Your task to perform on an android device: change the clock display to digital Image 0: 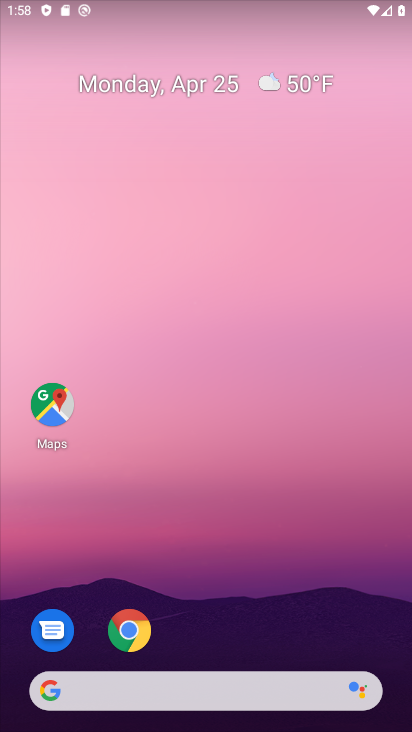
Step 0: drag from (232, 646) to (236, 161)
Your task to perform on an android device: change the clock display to digital Image 1: 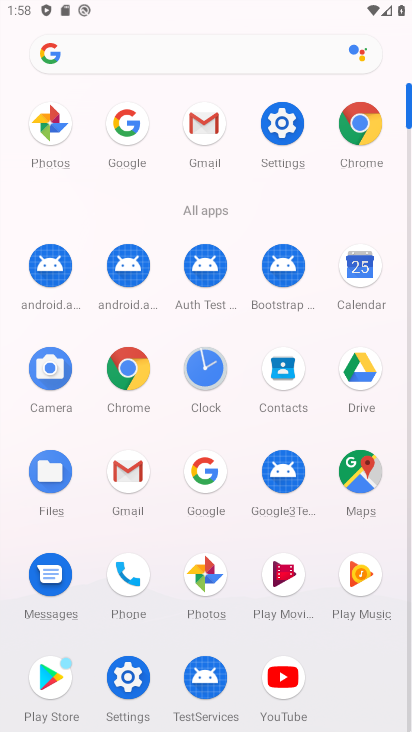
Step 1: click (222, 375)
Your task to perform on an android device: change the clock display to digital Image 2: 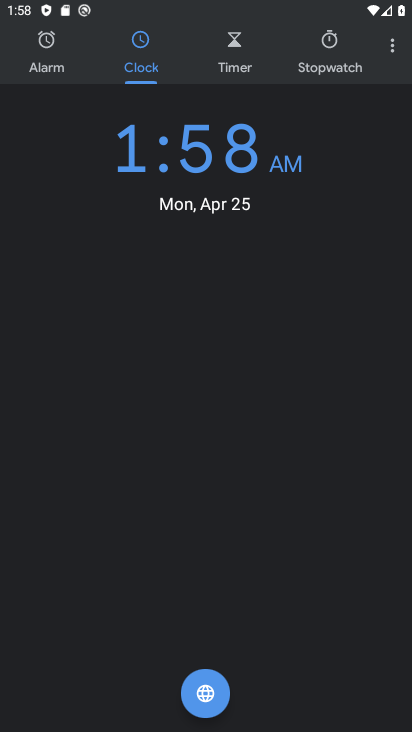
Step 2: click (380, 57)
Your task to perform on an android device: change the clock display to digital Image 3: 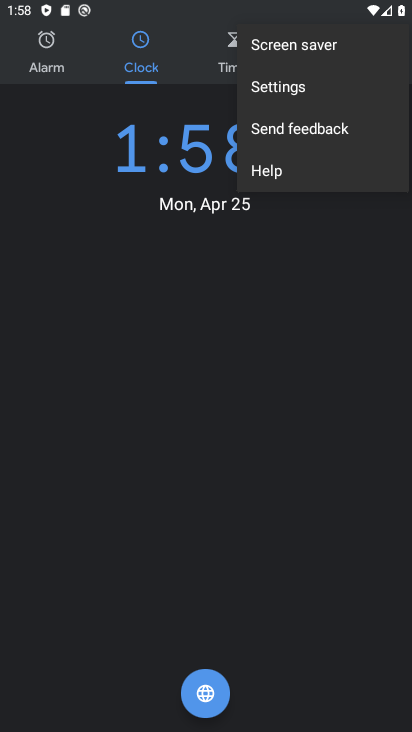
Step 3: click (310, 81)
Your task to perform on an android device: change the clock display to digital Image 4: 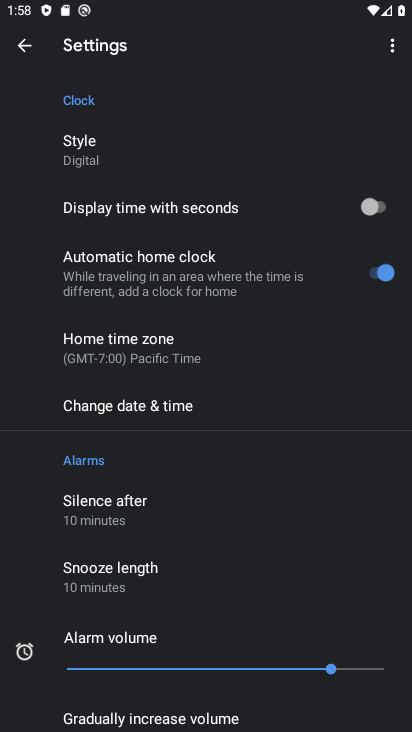
Step 4: click (136, 156)
Your task to perform on an android device: change the clock display to digital Image 5: 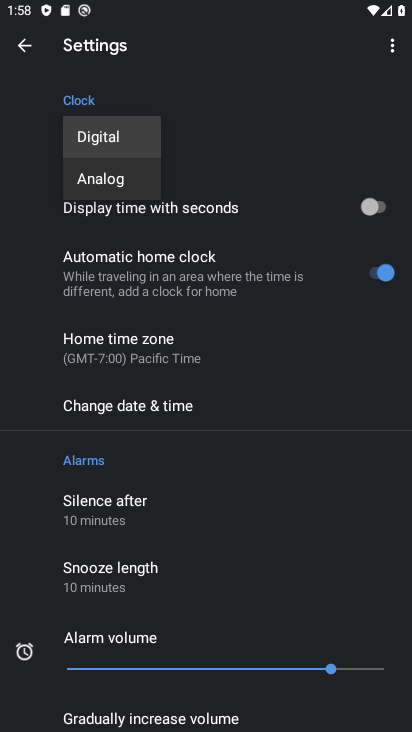
Step 5: task complete